Your task to perform on an android device: Open battery settings Image 0: 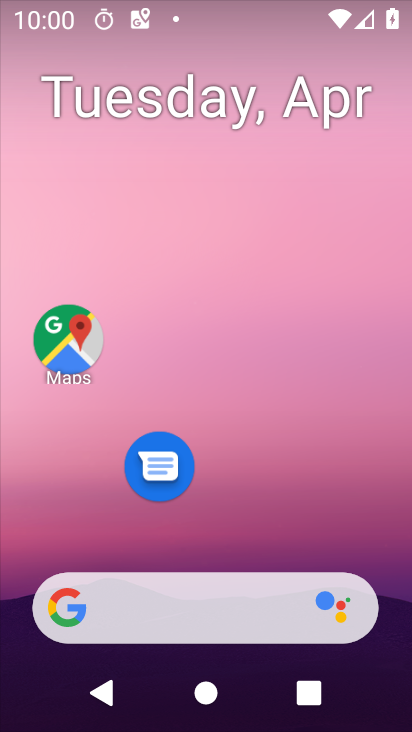
Step 0: drag from (272, 550) to (216, 34)
Your task to perform on an android device: Open battery settings Image 1: 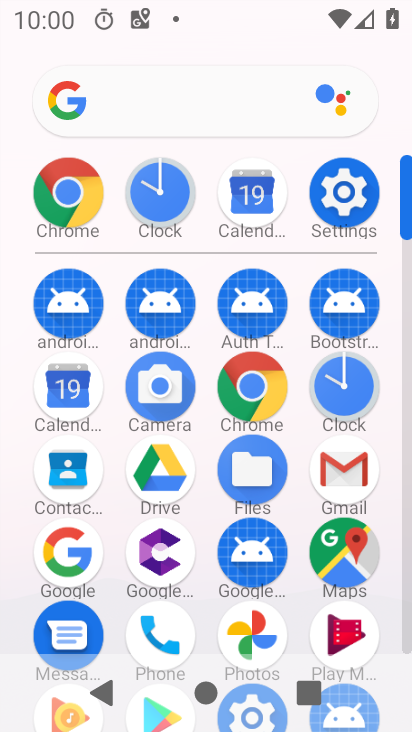
Step 1: click (335, 208)
Your task to perform on an android device: Open battery settings Image 2: 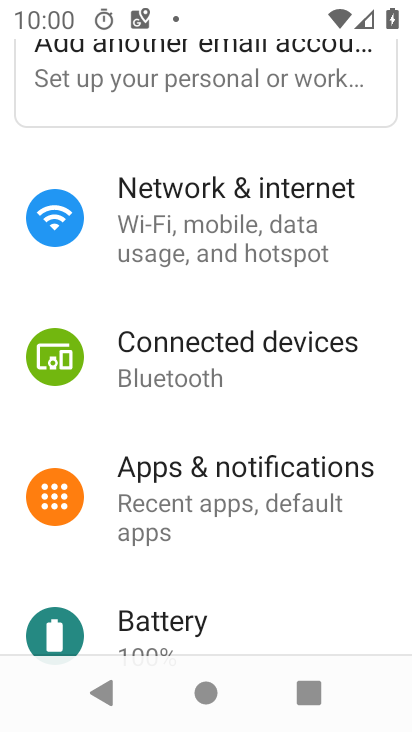
Step 2: click (229, 473)
Your task to perform on an android device: Open battery settings Image 3: 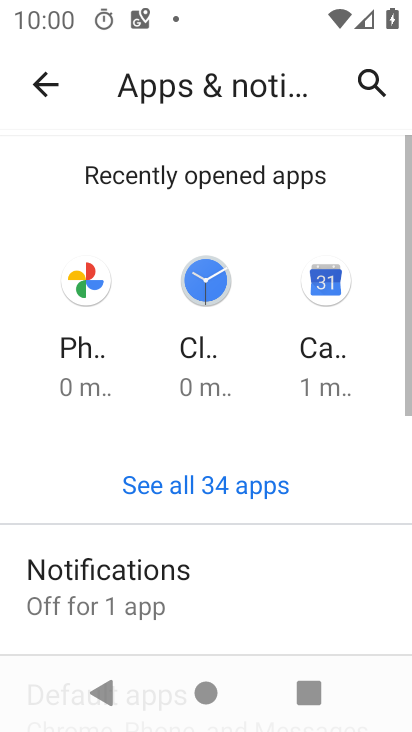
Step 3: click (101, 702)
Your task to perform on an android device: Open battery settings Image 4: 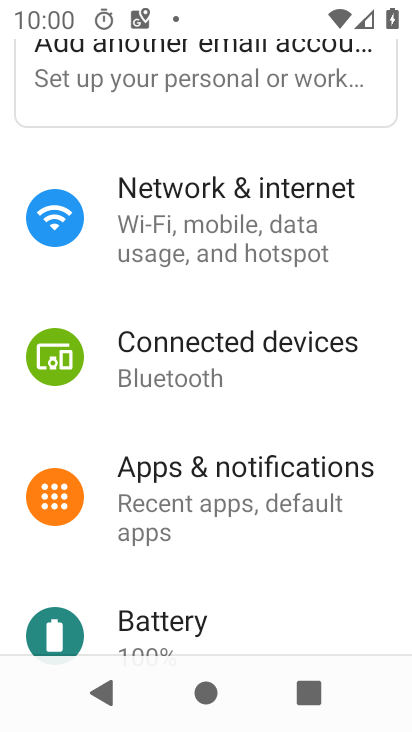
Step 4: click (180, 640)
Your task to perform on an android device: Open battery settings Image 5: 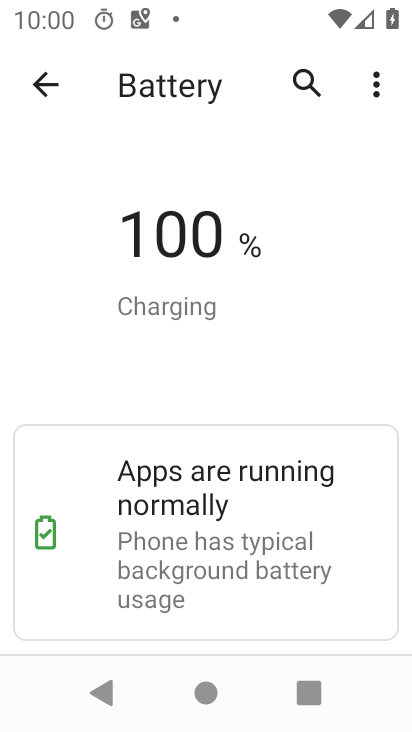
Step 5: task complete